Your task to perform on an android device: set an alarm Image 0: 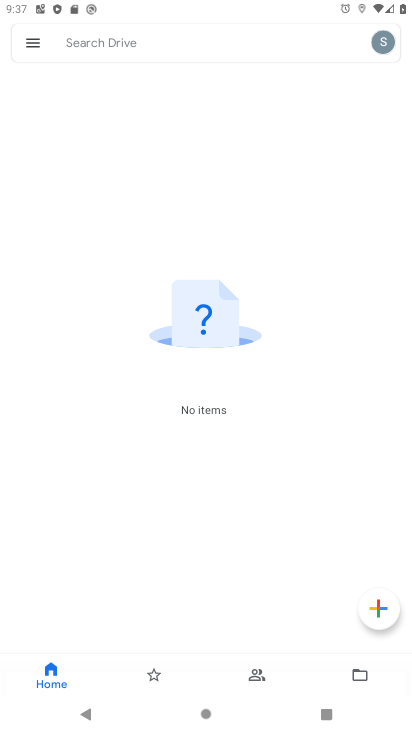
Step 0: press home button
Your task to perform on an android device: set an alarm Image 1: 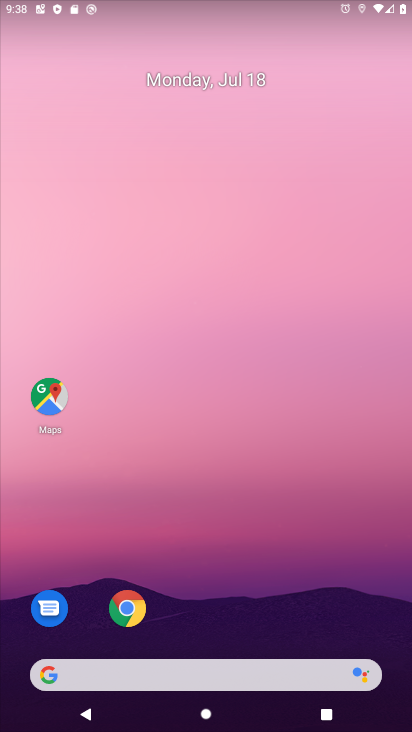
Step 1: drag from (34, 698) to (314, 149)
Your task to perform on an android device: set an alarm Image 2: 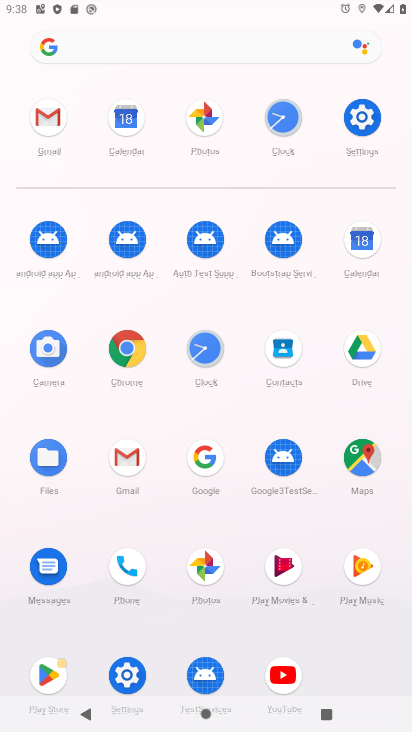
Step 2: click (191, 352)
Your task to perform on an android device: set an alarm Image 3: 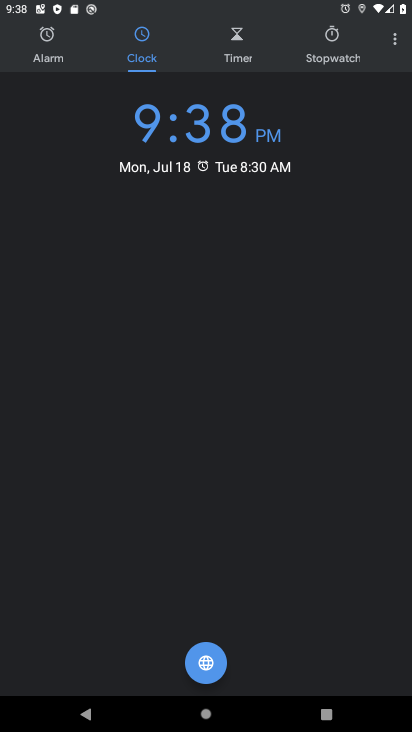
Step 3: click (54, 58)
Your task to perform on an android device: set an alarm Image 4: 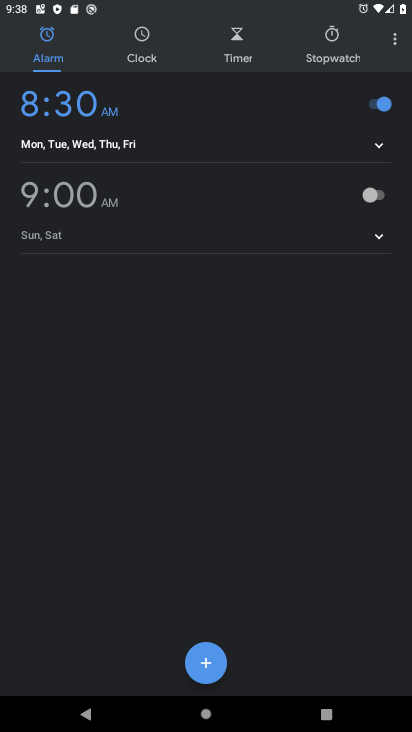
Step 4: task complete